Your task to perform on an android device: all mails in gmail Image 0: 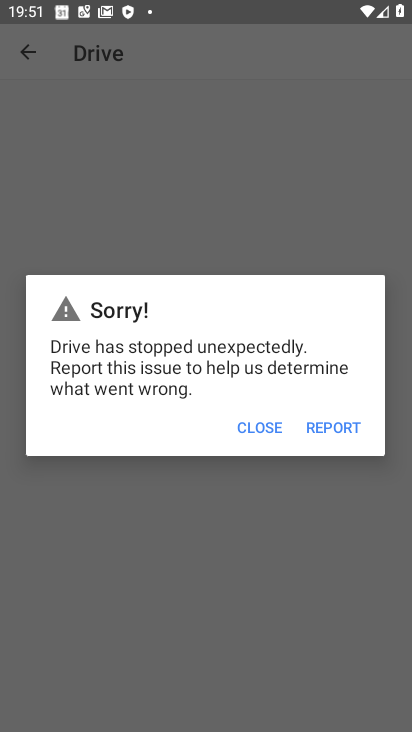
Step 0: press home button
Your task to perform on an android device: all mails in gmail Image 1: 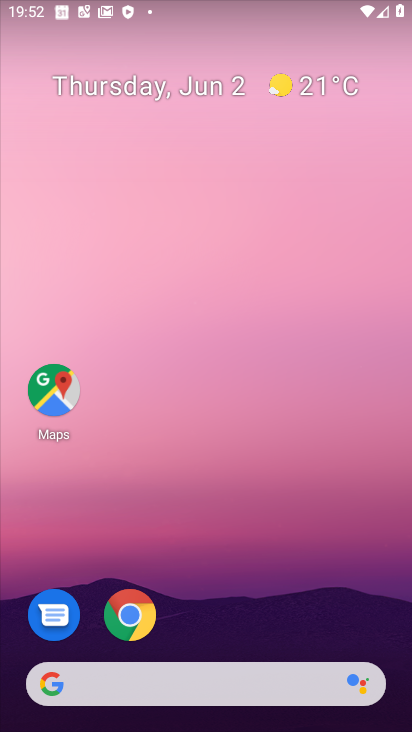
Step 1: task complete